Your task to perform on an android device: set an alarm Image 0: 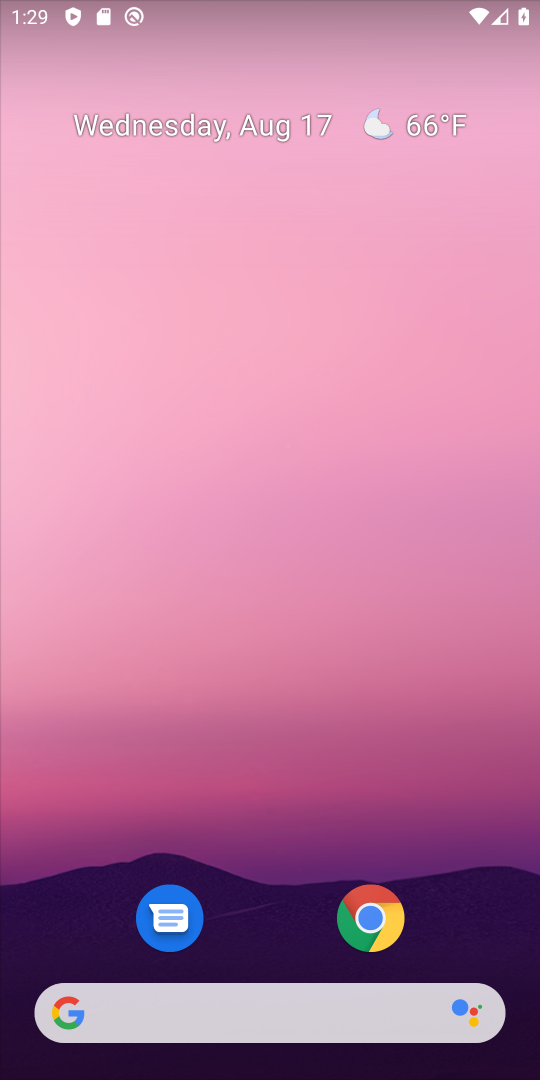
Step 0: drag from (246, 1028) to (323, 11)
Your task to perform on an android device: set an alarm Image 1: 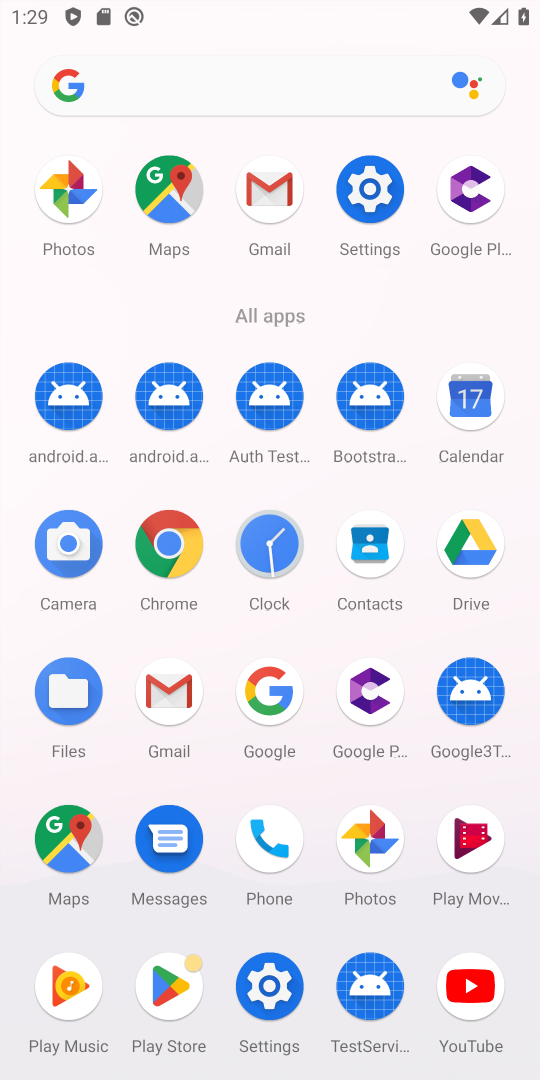
Step 1: click (272, 542)
Your task to perform on an android device: set an alarm Image 2: 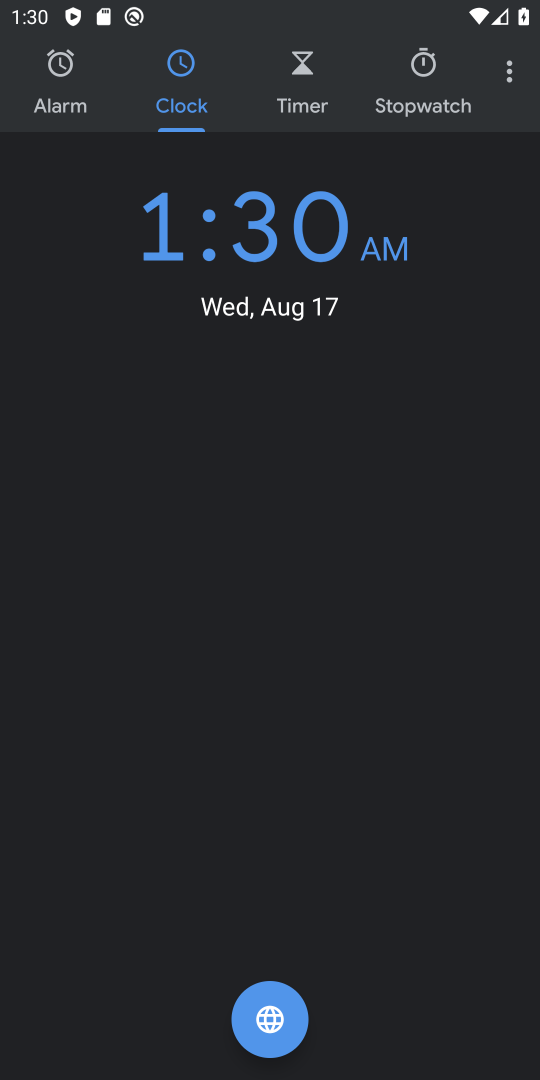
Step 2: click (60, 106)
Your task to perform on an android device: set an alarm Image 3: 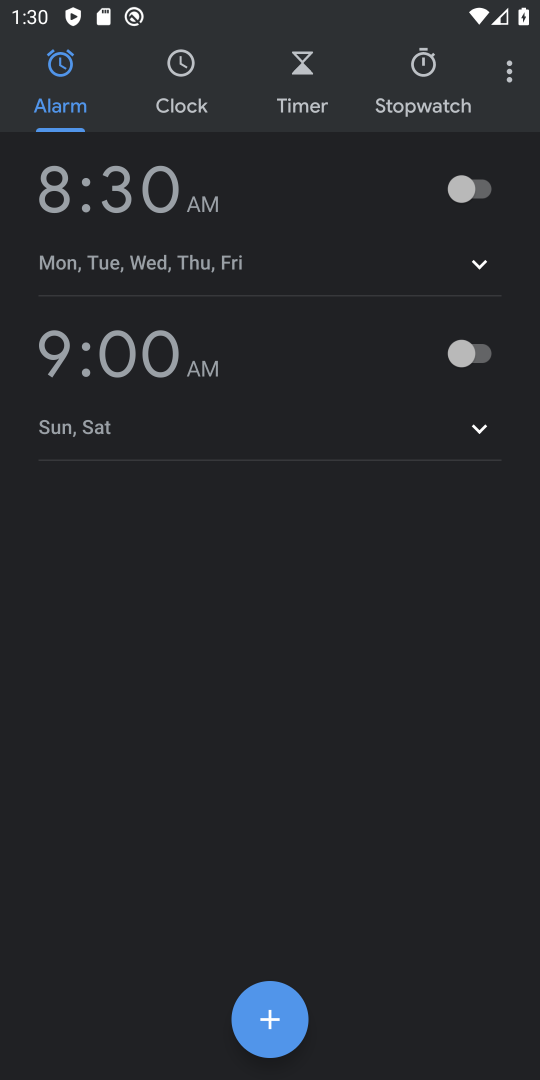
Step 3: click (280, 998)
Your task to perform on an android device: set an alarm Image 4: 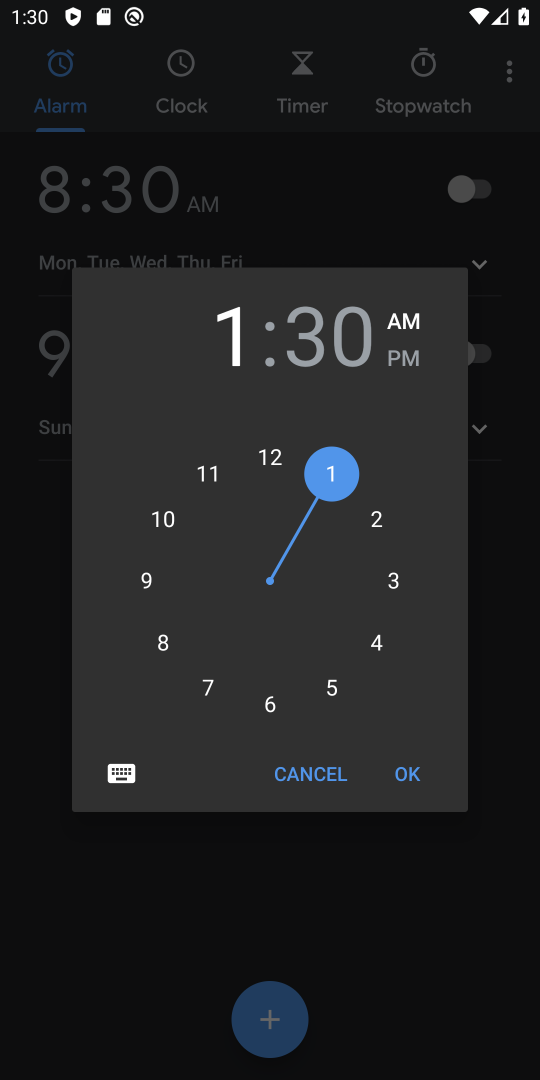
Step 4: click (270, 694)
Your task to perform on an android device: set an alarm Image 5: 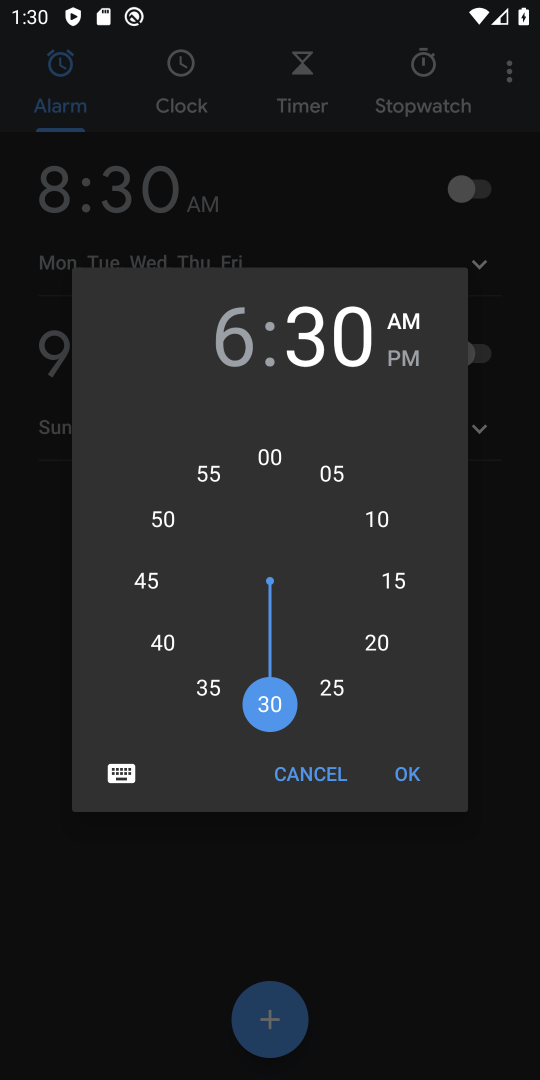
Step 5: click (403, 778)
Your task to perform on an android device: set an alarm Image 6: 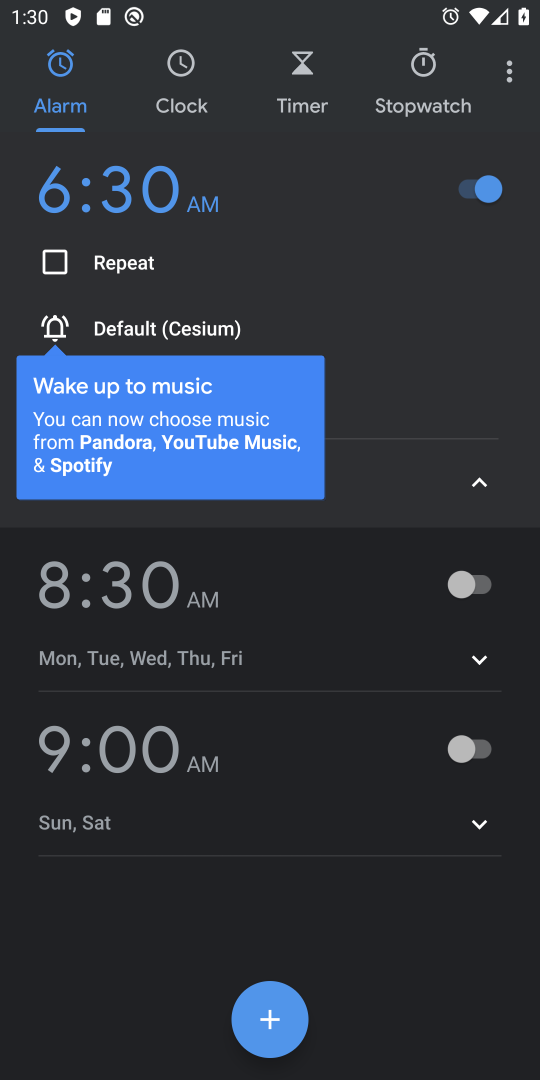
Step 6: task complete